Your task to perform on an android device: open app "Facebook" (install if not already installed) and go to login screen Image 0: 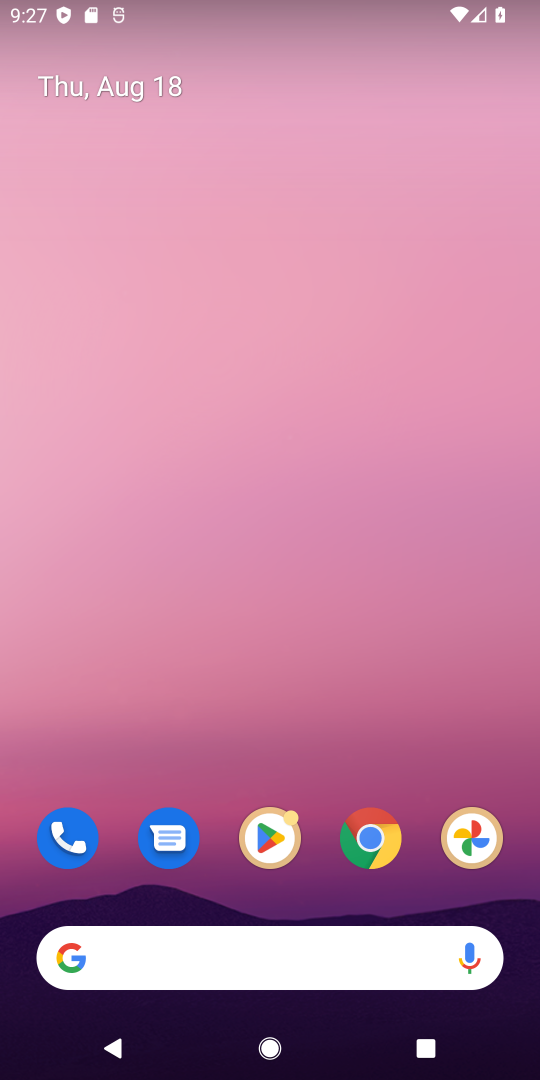
Step 0: click (363, 943)
Your task to perform on an android device: open app "Facebook" (install if not already installed) and go to login screen Image 1: 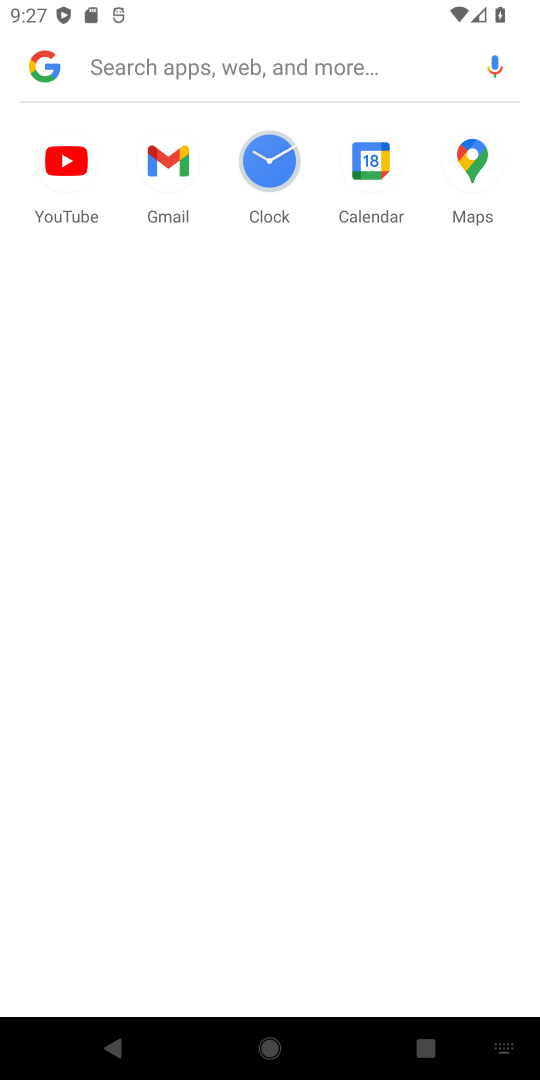
Step 1: type "facebook apk"
Your task to perform on an android device: open app "Facebook" (install if not already installed) and go to login screen Image 2: 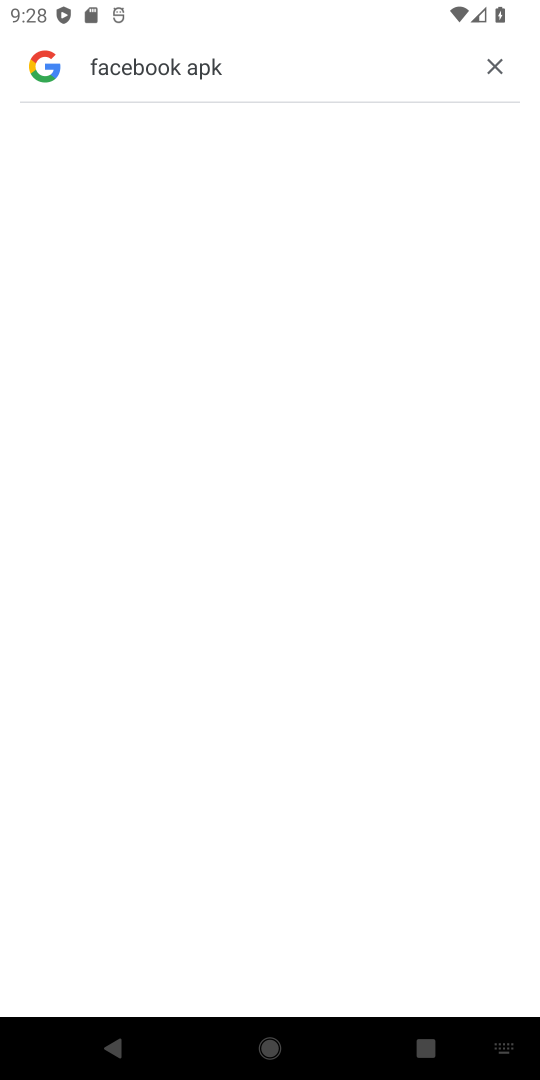
Step 2: task complete